Your task to perform on an android device: check data usage Image 0: 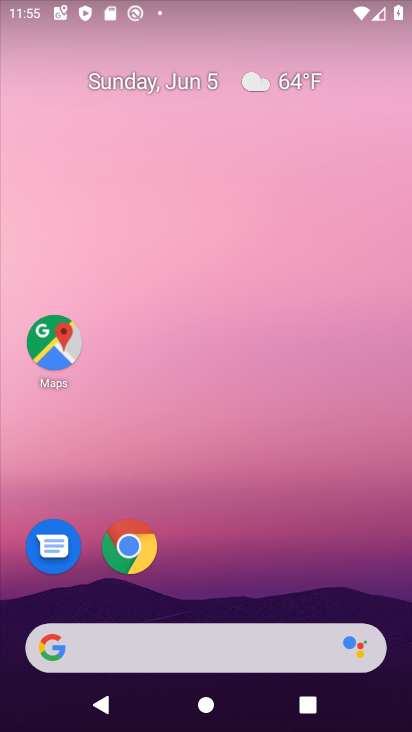
Step 0: drag from (241, 608) to (237, 273)
Your task to perform on an android device: check data usage Image 1: 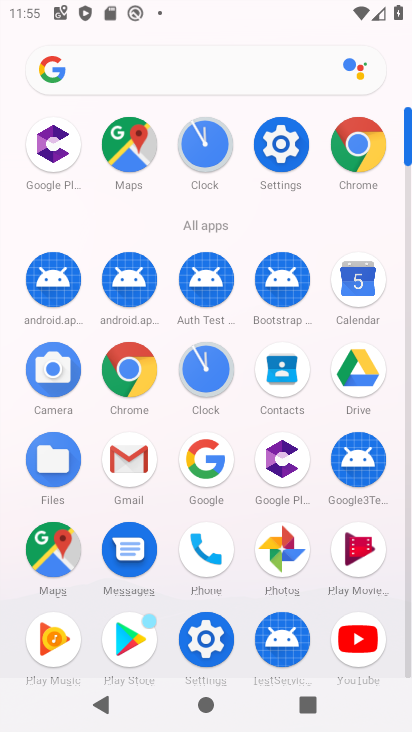
Step 1: click (269, 143)
Your task to perform on an android device: check data usage Image 2: 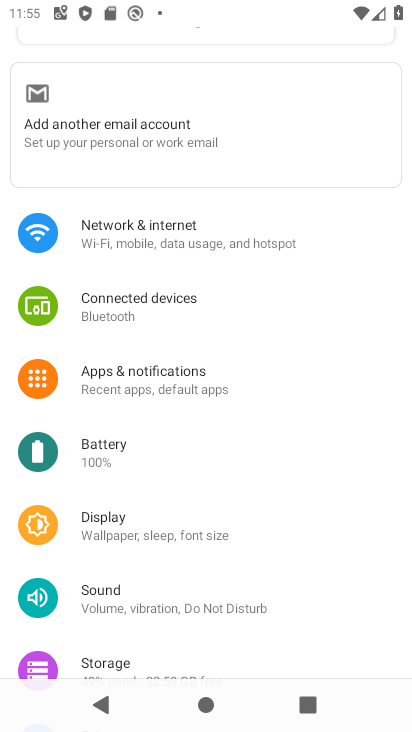
Step 2: click (168, 232)
Your task to perform on an android device: check data usage Image 3: 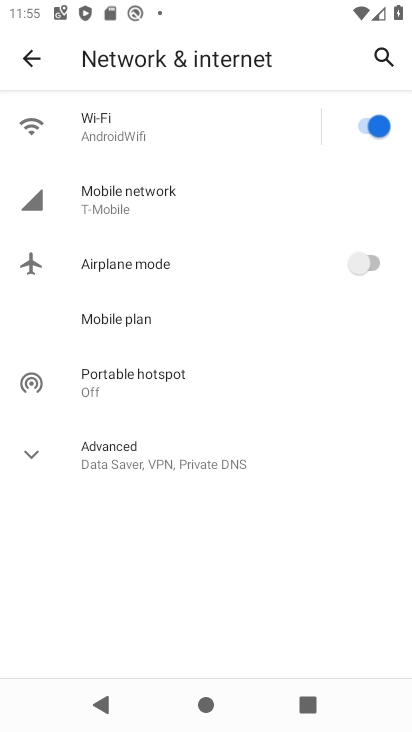
Step 3: click (136, 178)
Your task to perform on an android device: check data usage Image 4: 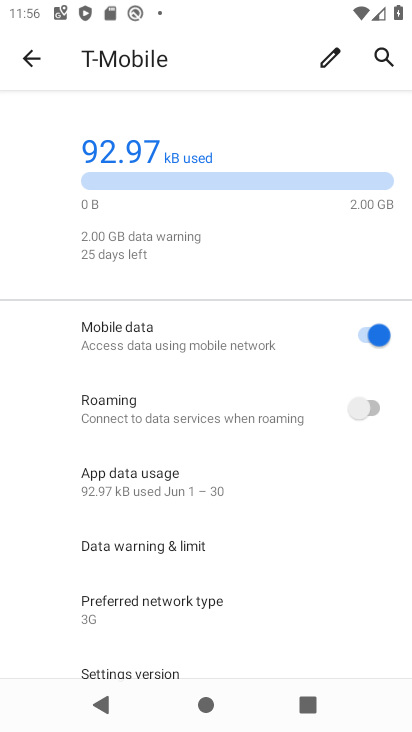
Step 4: task complete